Your task to perform on an android device: Open the calendar app, open the side menu, and click the "Day" option Image 0: 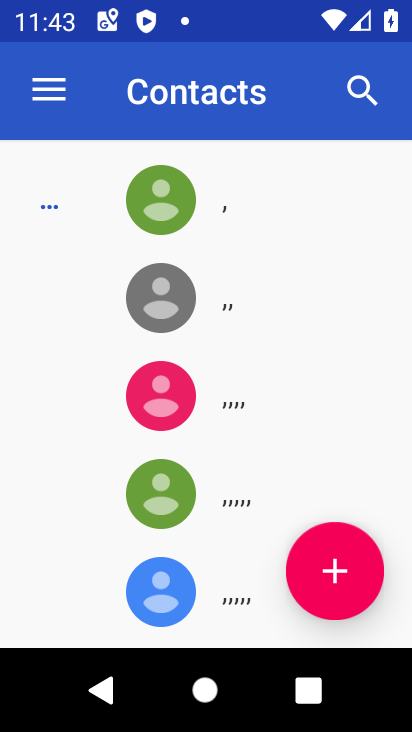
Step 0: press home button
Your task to perform on an android device: Open the calendar app, open the side menu, and click the "Day" option Image 1: 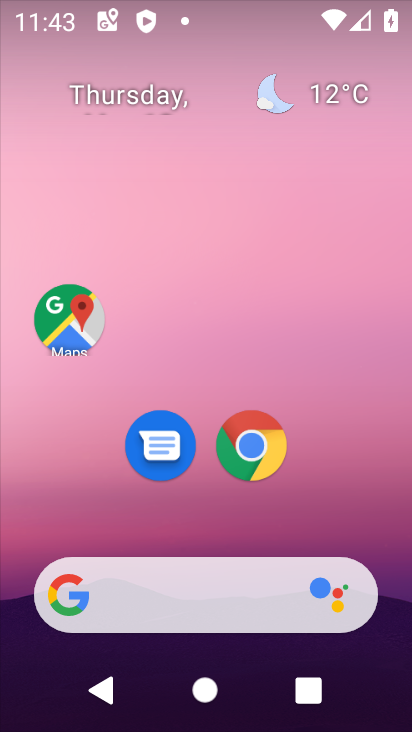
Step 1: drag from (173, 590) to (138, 154)
Your task to perform on an android device: Open the calendar app, open the side menu, and click the "Day" option Image 2: 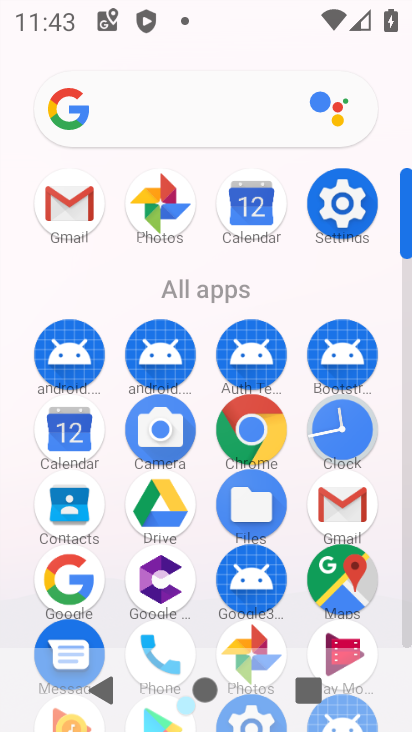
Step 2: click (67, 438)
Your task to perform on an android device: Open the calendar app, open the side menu, and click the "Day" option Image 3: 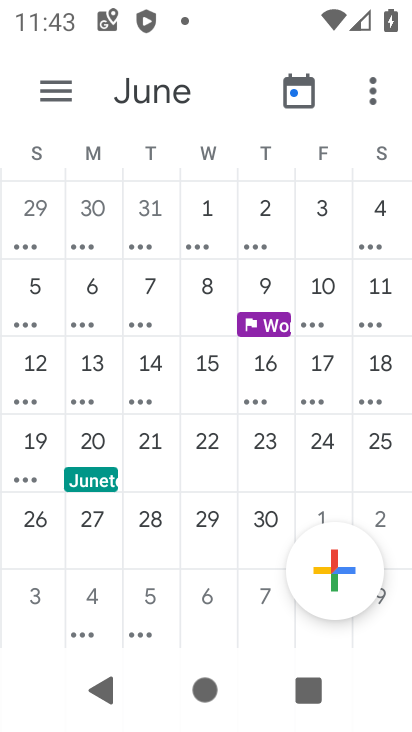
Step 3: click (48, 84)
Your task to perform on an android device: Open the calendar app, open the side menu, and click the "Day" option Image 4: 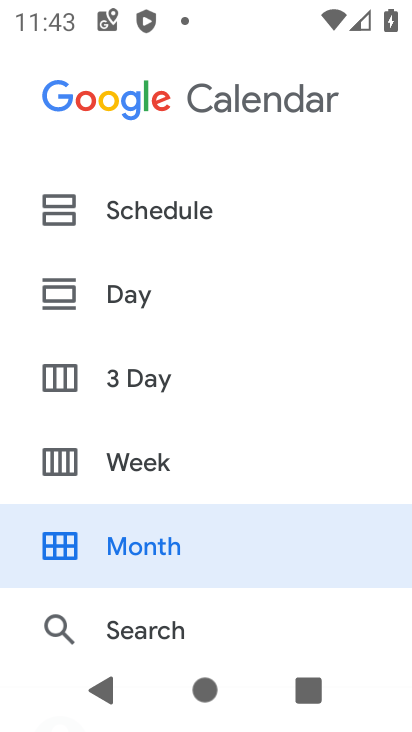
Step 4: click (125, 287)
Your task to perform on an android device: Open the calendar app, open the side menu, and click the "Day" option Image 5: 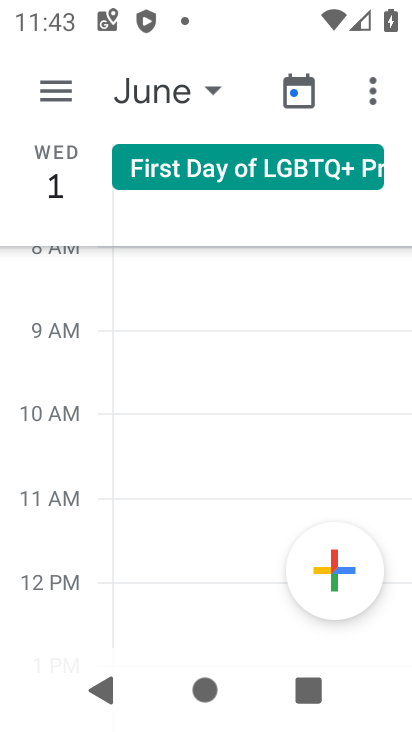
Step 5: task complete